Your task to perform on an android device: Open calendar and show me the first week of next month Image 0: 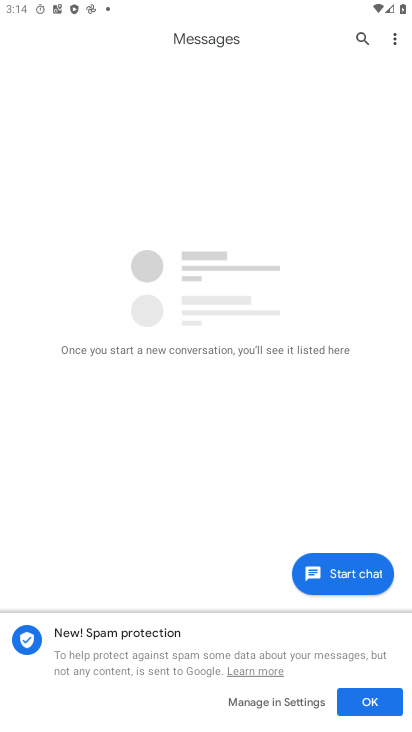
Step 0: press home button
Your task to perform on an android device: Open calendar and show me the first week of next month Image 1: 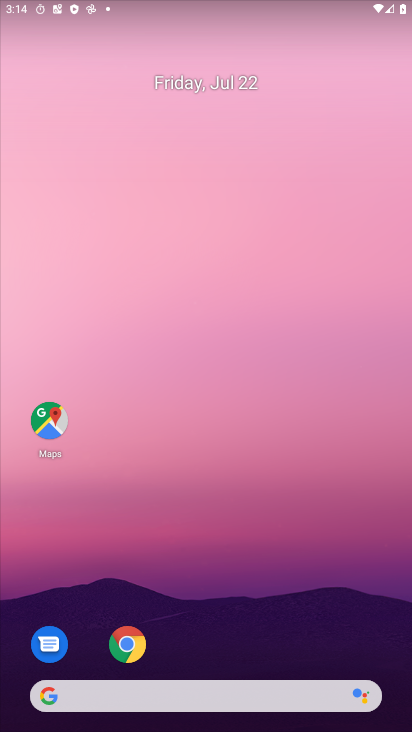
Step 1: drag from (229, 698) to (395, 26)
Your task to perform on an android device: Open calendar and show me the first week of next month Image 2: 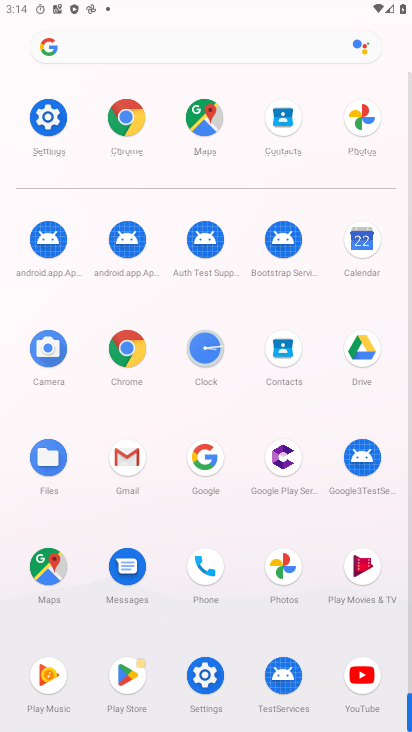
Step 2: click (361, 273)
Your task to perform on an android device: Open calendar and show me the first week of next month Image 3: 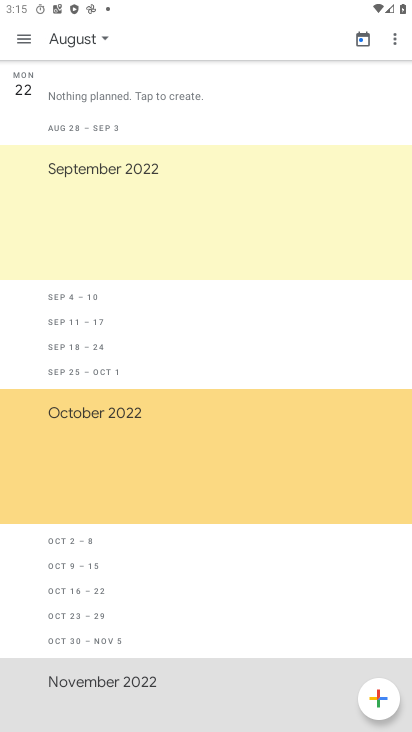
Step 3: click (102, 42)
Your task to perform on an android device: Open calendar and show me the first week of next month Image 4: 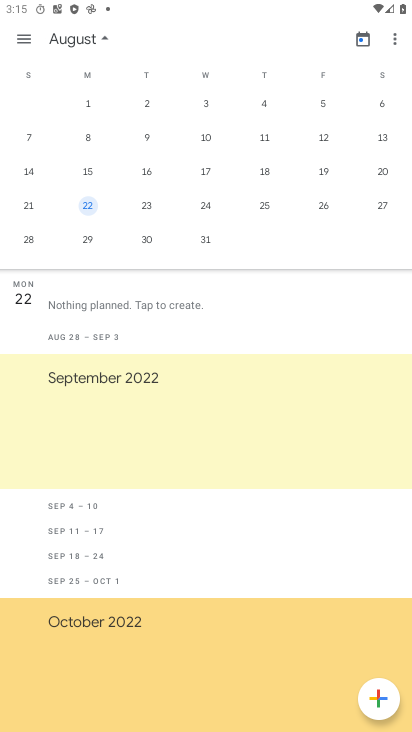
Step 4: click (89, 206)
Your task to perform on an android device: Open calendar and show me the first week of next month Image 5: 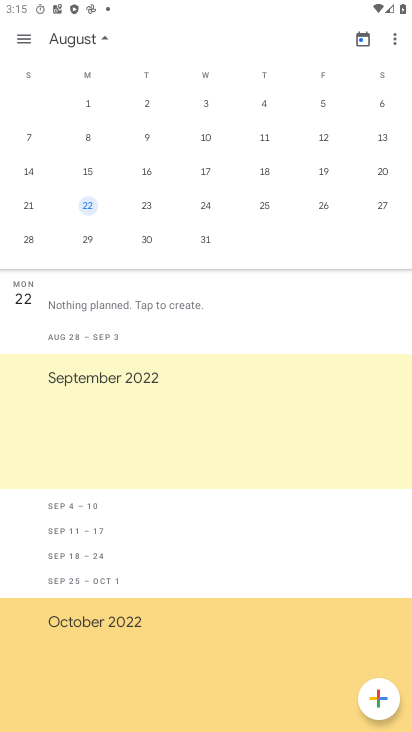
Step 5: task complete